Your task to perform on an android device: Open CNN.com Image 0: 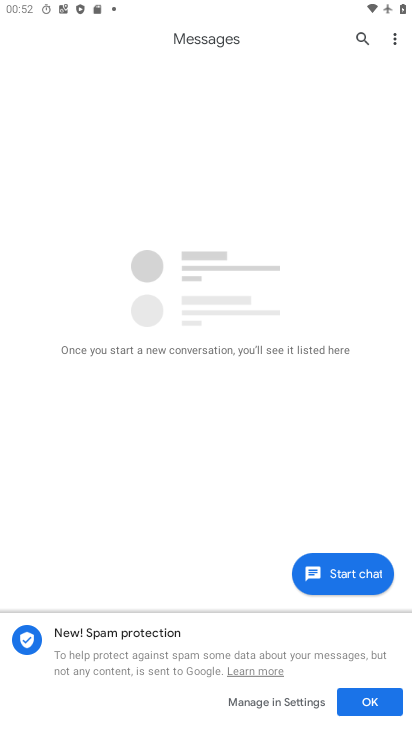
Step 0: press home button
Your task to perform on an android device: Open CNN.com Image 1: 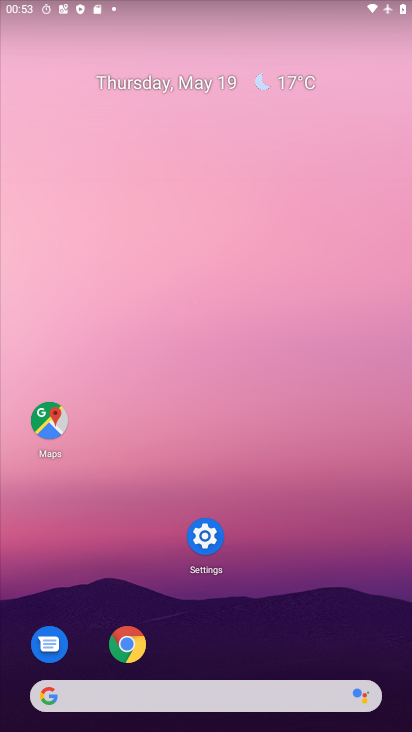
Step 1: click (125, 638)
Your task to perform on an android device: Open CNN.com Image 2: 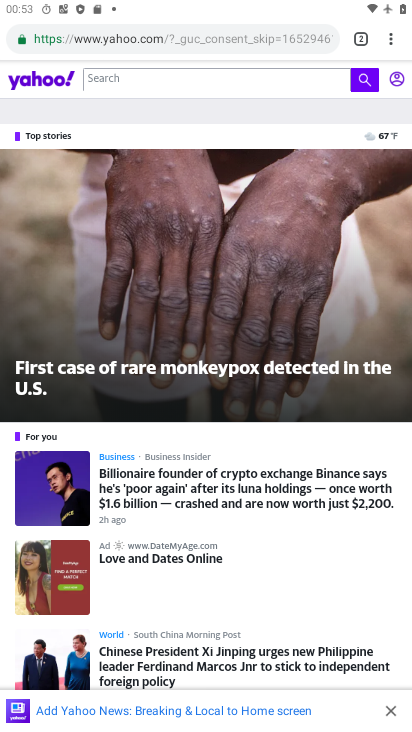
Step 2: click (200, 39)
Your task to perform on an android device: Open CNN.com Image 3: 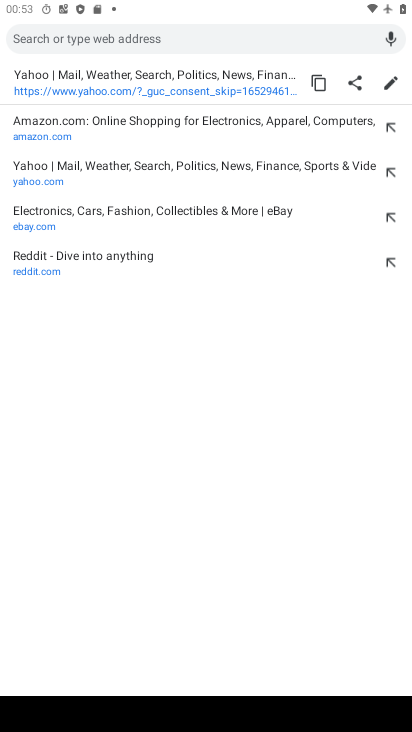
Step 3: type "cnn.com"
Your task to perform on an android device: Open CNN.com Image 4: 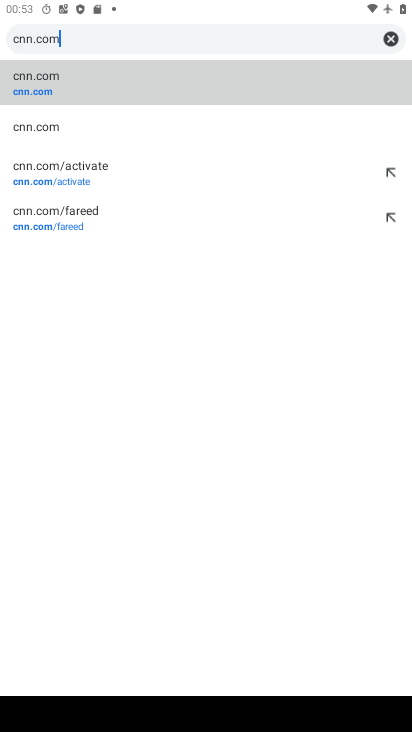
Step 4: click (38, 86)
Your task to perform on an android device: Open CNN.com Image 5: 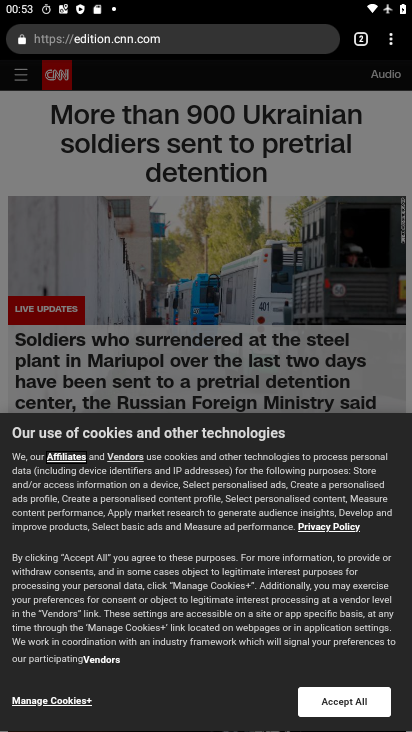
Step 5: task complete